Your task to perform on an android device: turn off notifications settings in the gmail app Image 0: 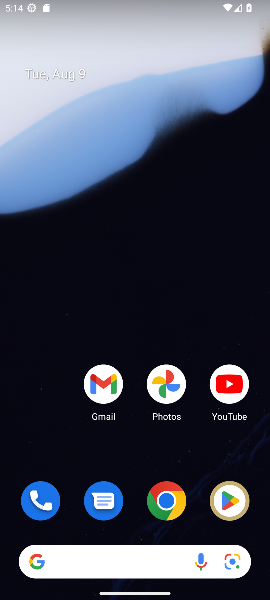
Step 0: drag from (123, 510) to (141, 135)
Your task to perform on an android device: turn off notifications settings in the gmail app Image 1: 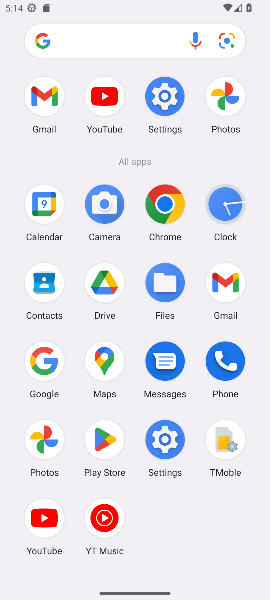
Step 1: click (230, 287)
Your task to perform on an android device: turn off notifications settings in the gmail app Image 2: 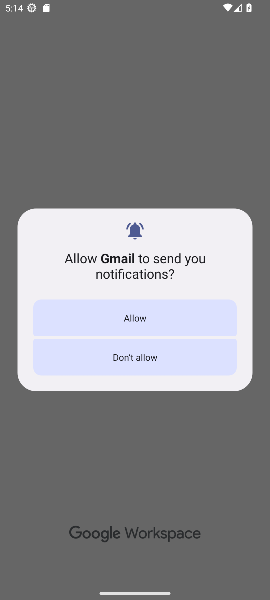
Step 2: click (173, 317)
Your task to perform on an android device: turn off notifications settings in the gmail app Image 3: 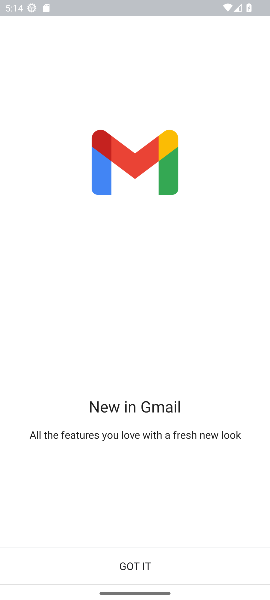
Step 3: click (149, 559)
Your task to perform on an android device: turn off notifications settings in the gmail app Image 4: 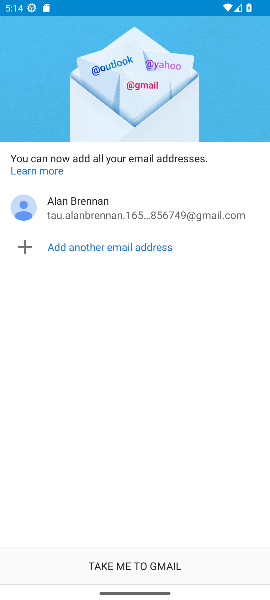
Step 4: click (131, 564)
Your task to perform on an android device: turn off notifications settings in the gmail app Image 5: 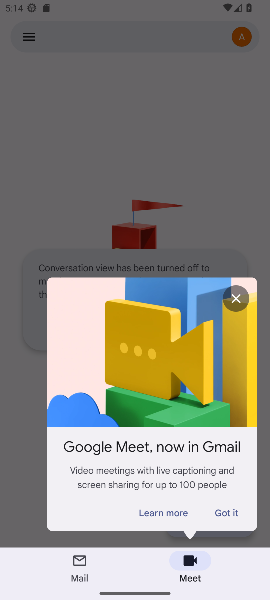
Step 5: click (240, 302)
Your task to perform on an android device: turn off notifications settings in the gmail app Image 6: 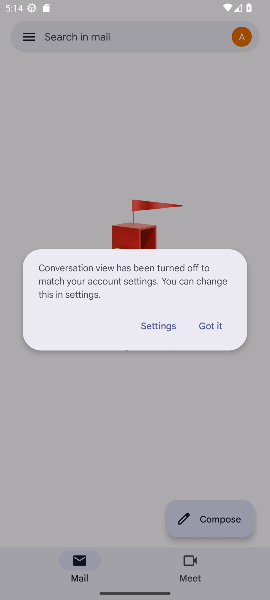
Step 6: click (208, 323)
Your task to perform on an android device: turn off notifications settings in the gmail app Image 7: 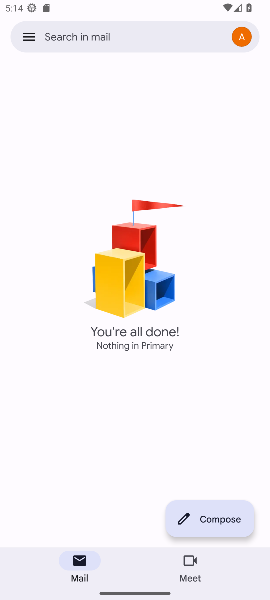
Step 7: click (36, 44)
Your task to perform on an android device: turn off notifications settings in the gmail app Image 8: 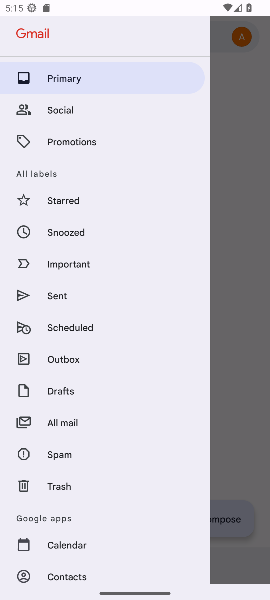
Step 8: drag from (104, 548) to (197, 132)
Your task to perform on an android device: turn off notifications settings in the gmail app Image 9: 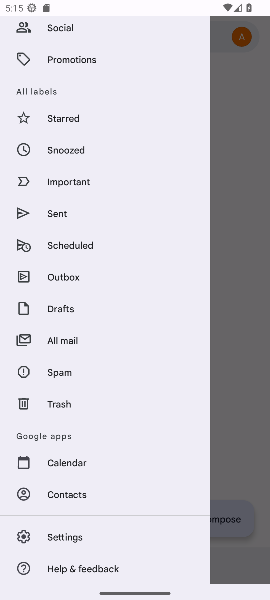
Step 9: click (71, 534)
Your task to perform on an android device: turn off notifications settings in the gmail app Image 10: 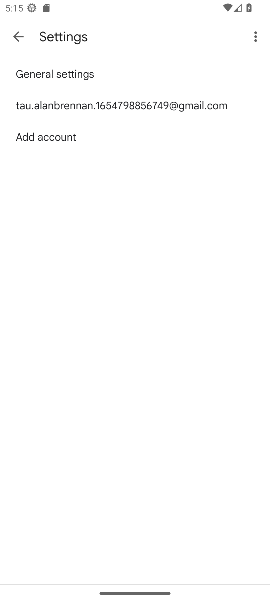
Step 10: click (66, 107)
Your task to perform on an android device: turn off notifications settings in the gmail app Image 11: 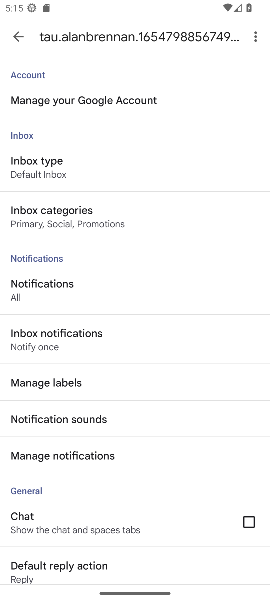
Step 11: click (28, 294)
Your task to perform on an android device: turn off notifications settings in the gmail app Image 12: 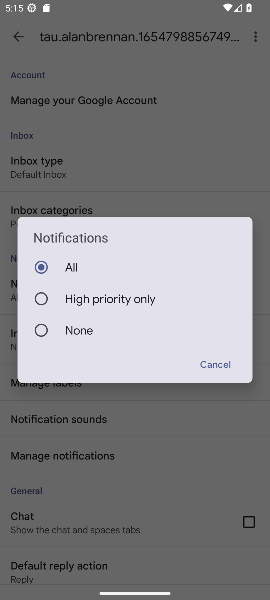
Step 12: click (65, 327)
Your task to perform on an android device: turn off notifications settings in the gmail app Image 13: 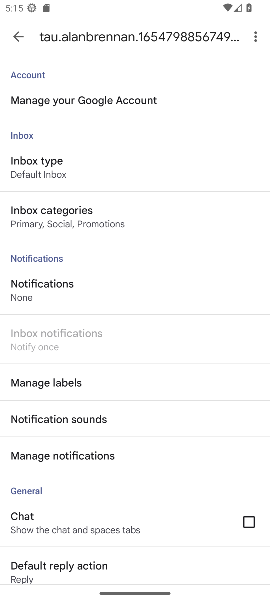
Step 13: task complete